Your task to perform on an android device: Open battery settings Image 0: 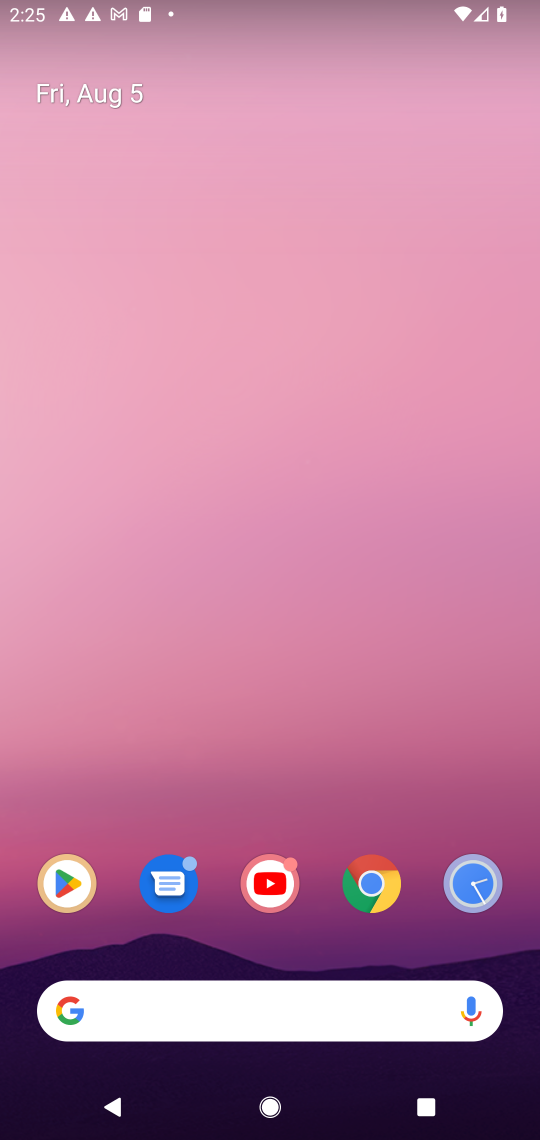
Step 0: press home button
Your task to perform on an android device: Open battery settings Image 1: 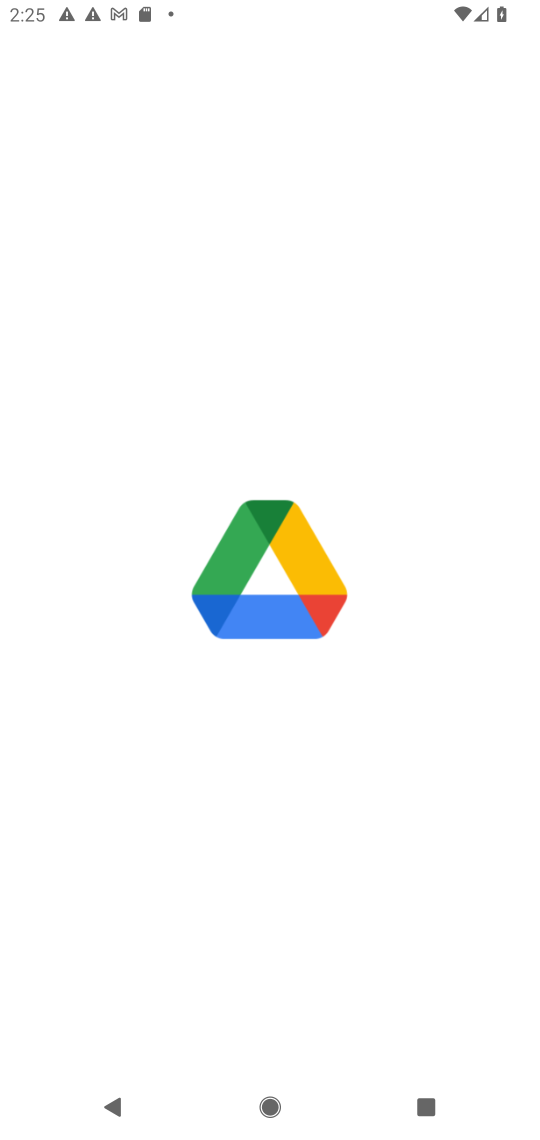
Step 1: press home button
Your task to perform on an android device: Open battery settings Image 2: 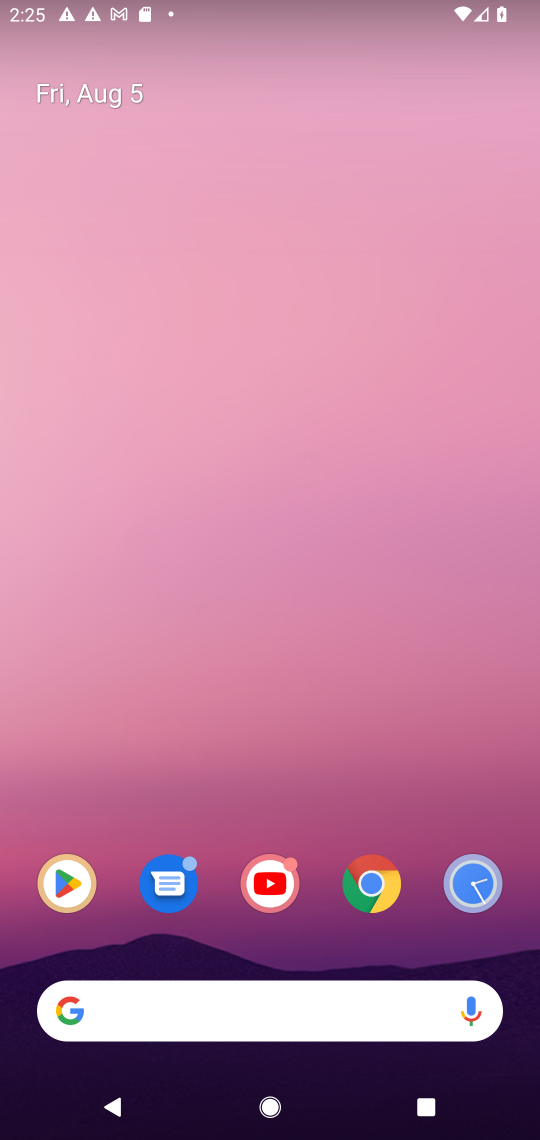
Step 2: press home button
Your task to perform on an android device: Open battery settings Image 3: 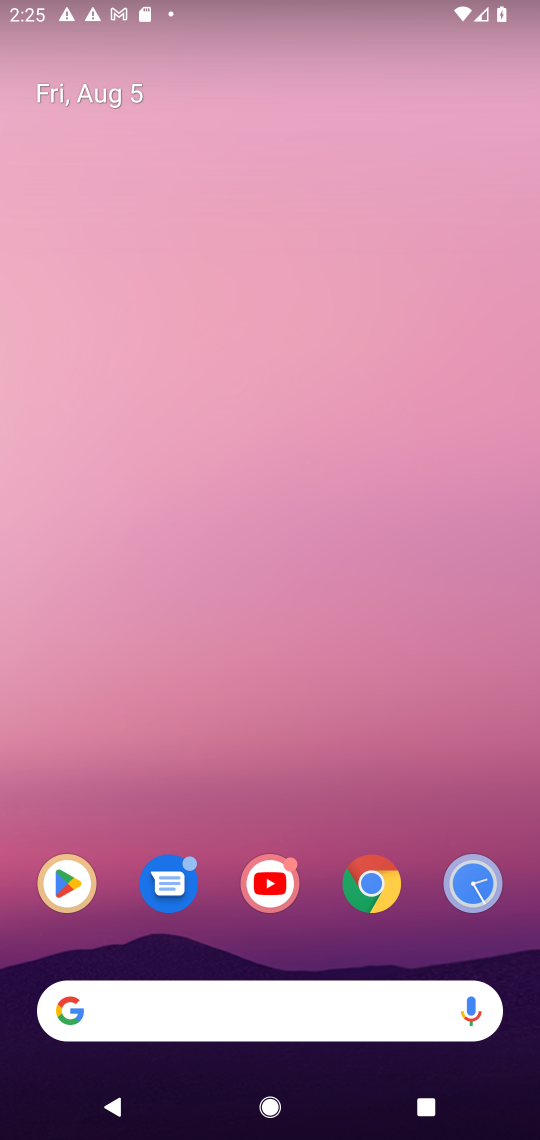
Step 3: drag from (323, 940) to (324, 60)
Your task to perform on an android device: Open battery settings Image 4: 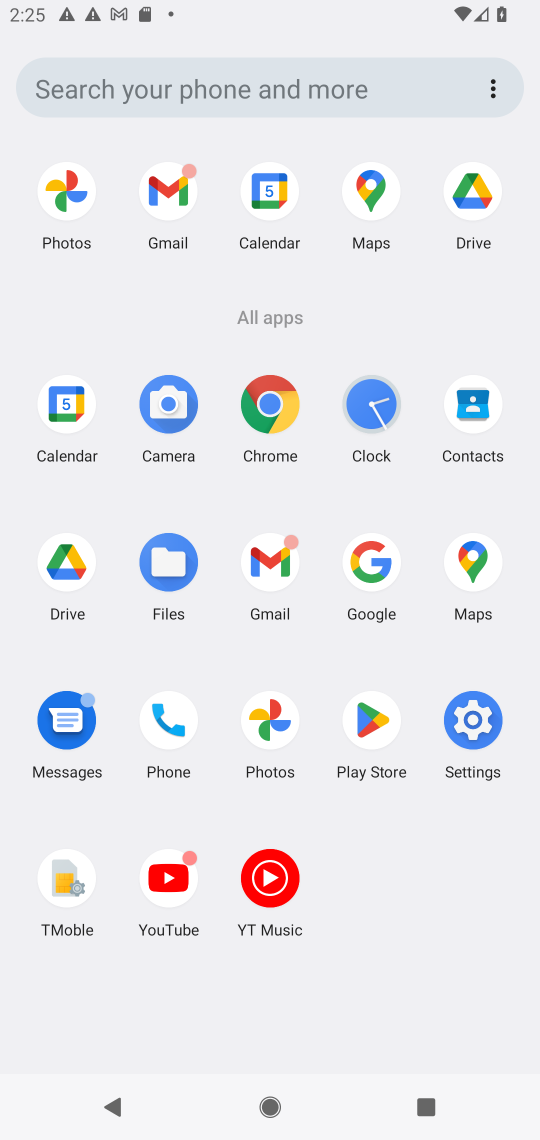
Step 4: click (473, 708)
Your task to perform on an android device: Open battery settings Image 5: 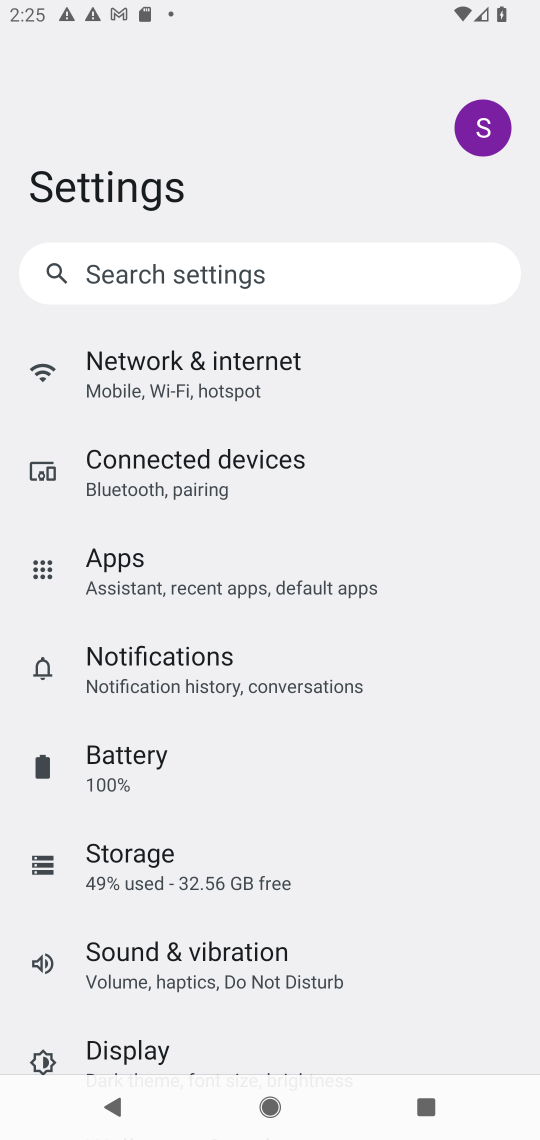
Step 5: click (185, 771)
Your task to perform on an android device: Open battery settings Image 6: 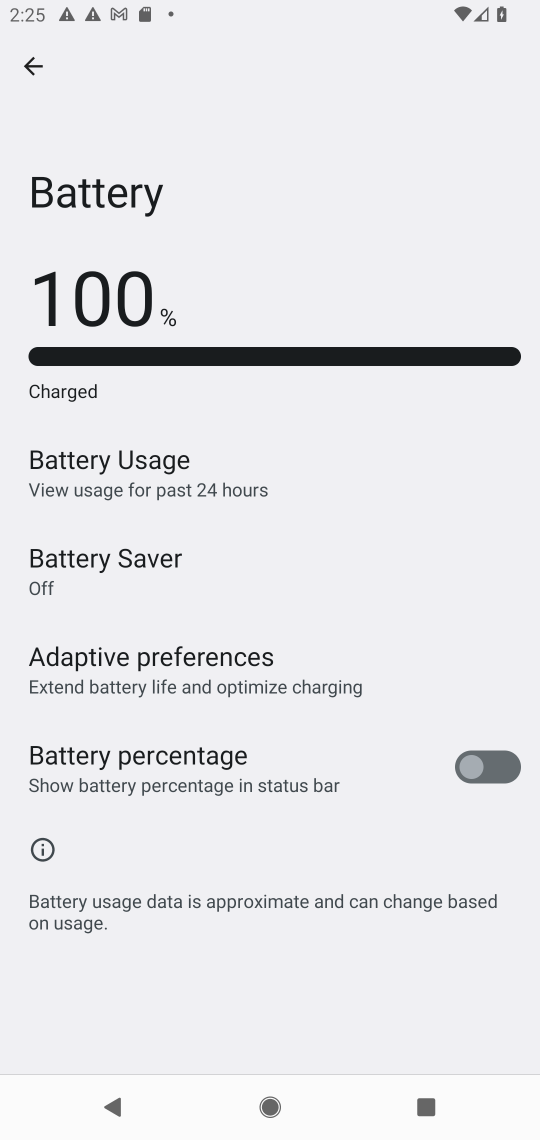
Step 6: task complete